Your task to perform on an android device: Go to internet settings Image 0: 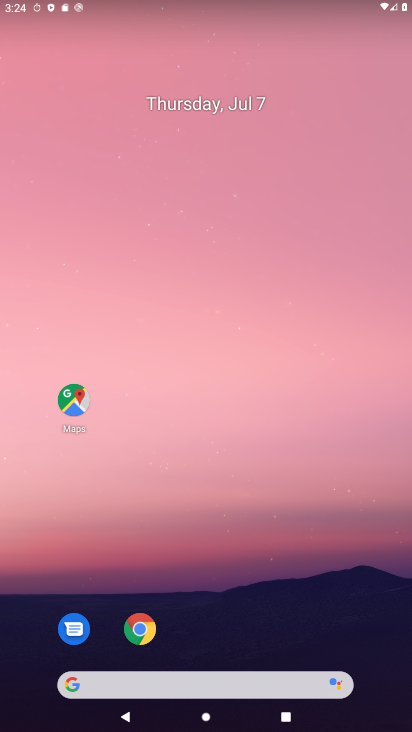
Step 0: click (150, 39)
Your task to perform on an android device: Go to internet settings Image 1: 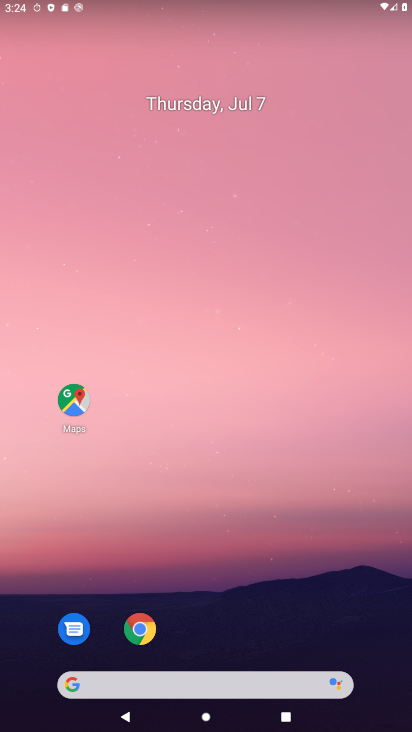
Step 1: drag from (204, 631) to (216, 258)
Your task to perform on an android device: Go to internet settings Image 2: 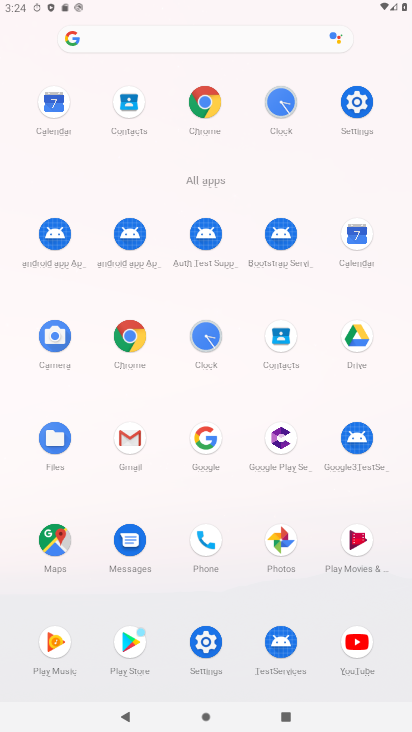
Step 2: click (357, 99)
Your task to perform on an android device: Go to internet settings Image 3: 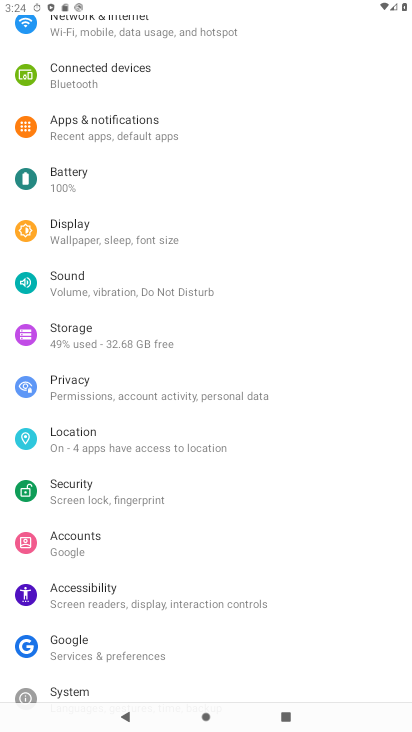
Step 3: click (83, 37)
Your task to perform on an android device: Go to internet settings Image 4: 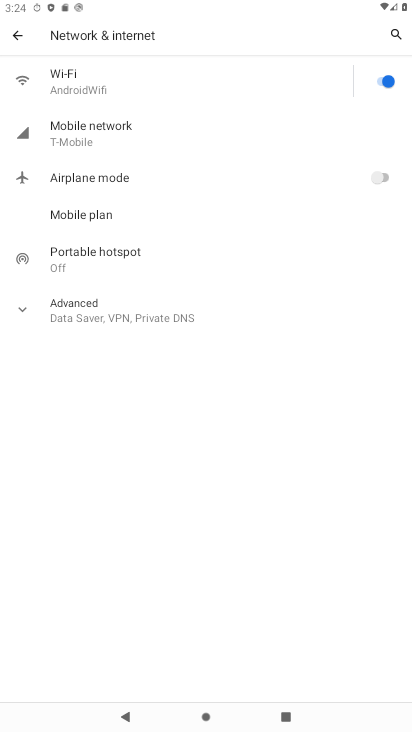
Step 4: click (122, 133)
Your task to perform on an android device: Go to internet settings Image 5: 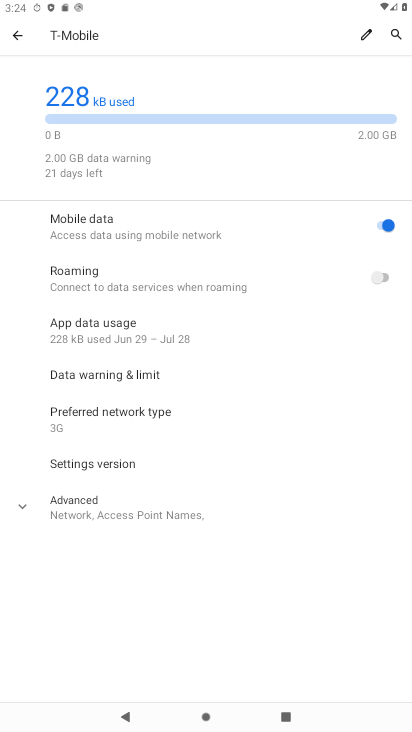
Step 5: task complete